Your task to perform on an android device: Search for the best burger restaurants on Maps Image 0: 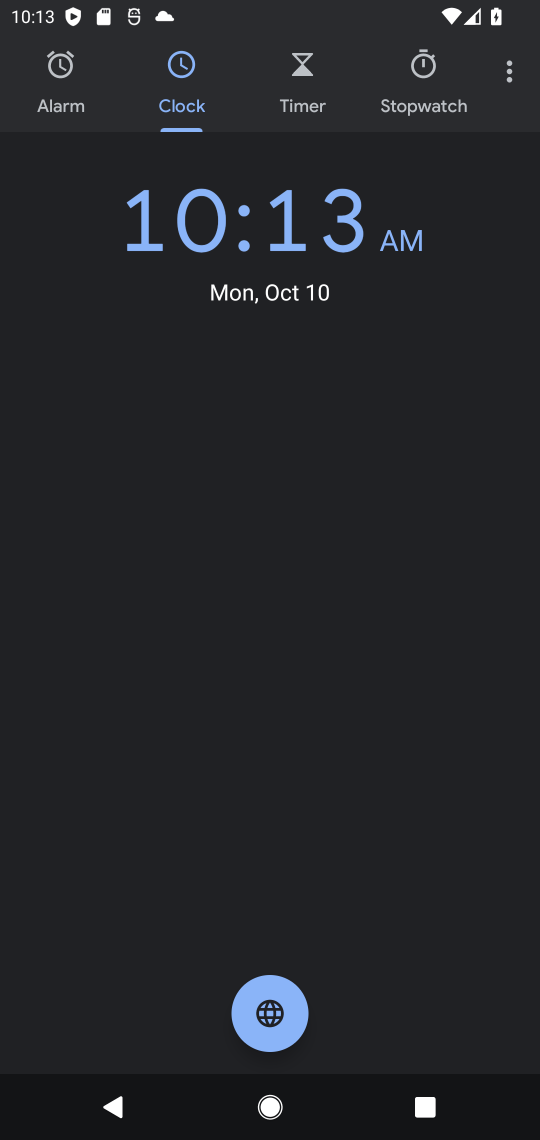
Step 0: press home button
Your task to perform on an android device: Search for the best burger restaurants on Maps Image 1: 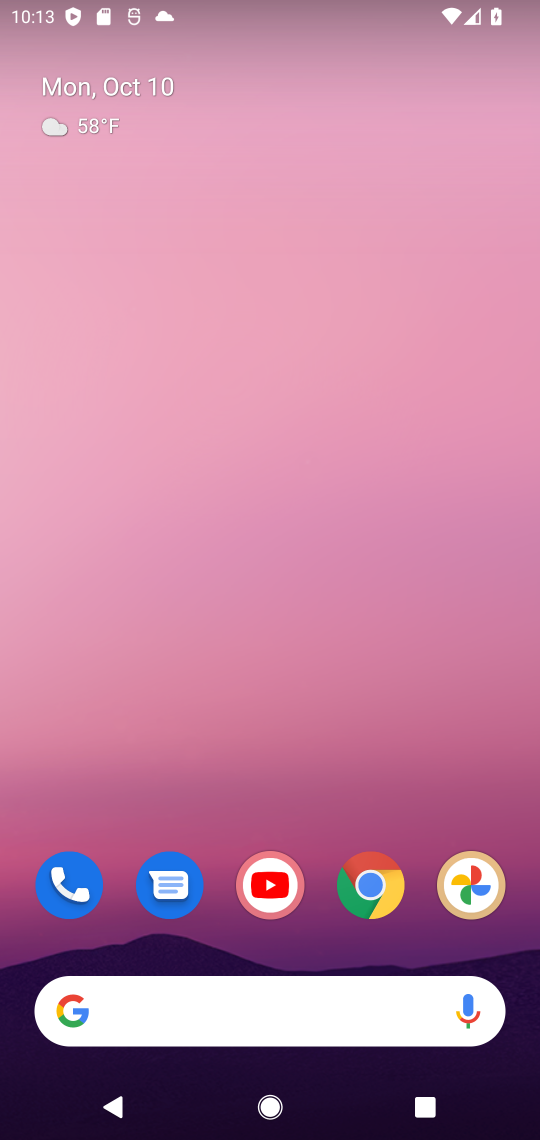
Step 1: click (360, 881)
Your task to perform on an android device: Search for the best burger restaurants on Maps Image 2: 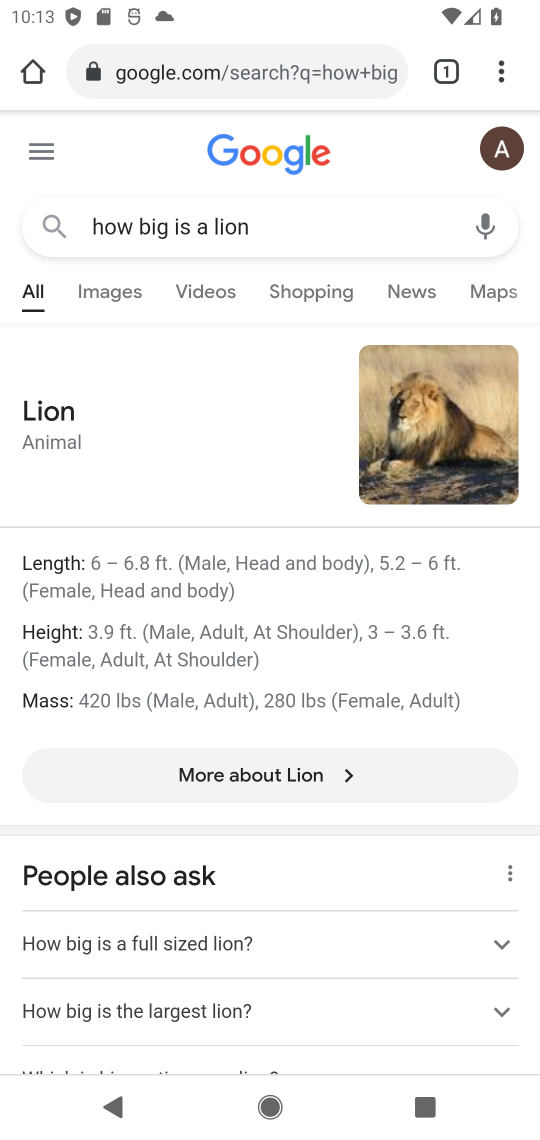
Step 2: press home button
Your task to perform on an android device: Search for the best burger restaurants on Maps Image 3: 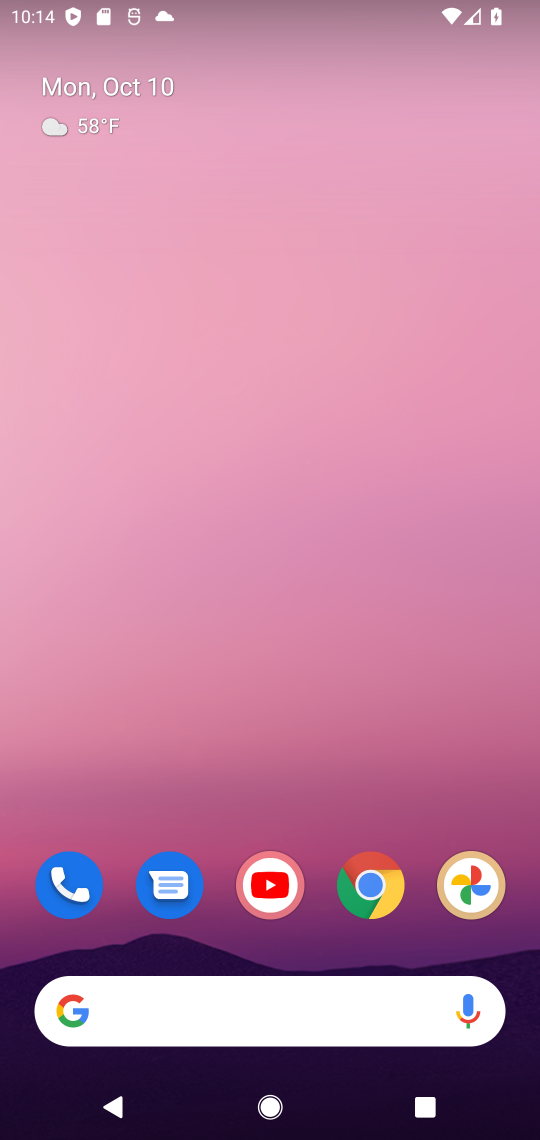
Step 3: drag from (419, 808) to (433, 146)
Your task to perform on an android device: Search for the best burger restaurants on Maps Image 4: 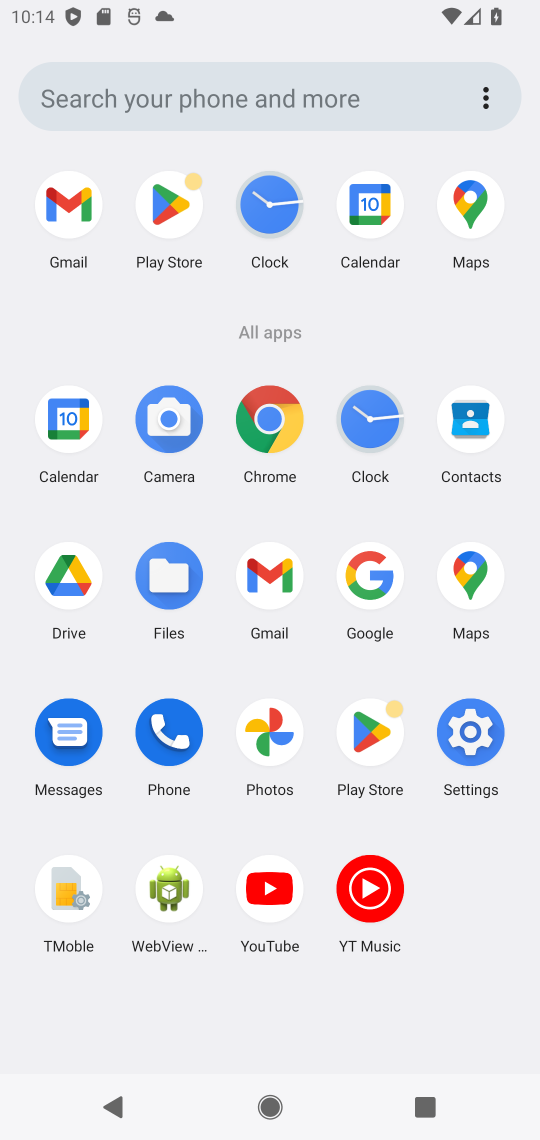
Step 4: click (480, 199)
Your task to perform on an android device: Search for the best burger restaurants on Maps Image 5: 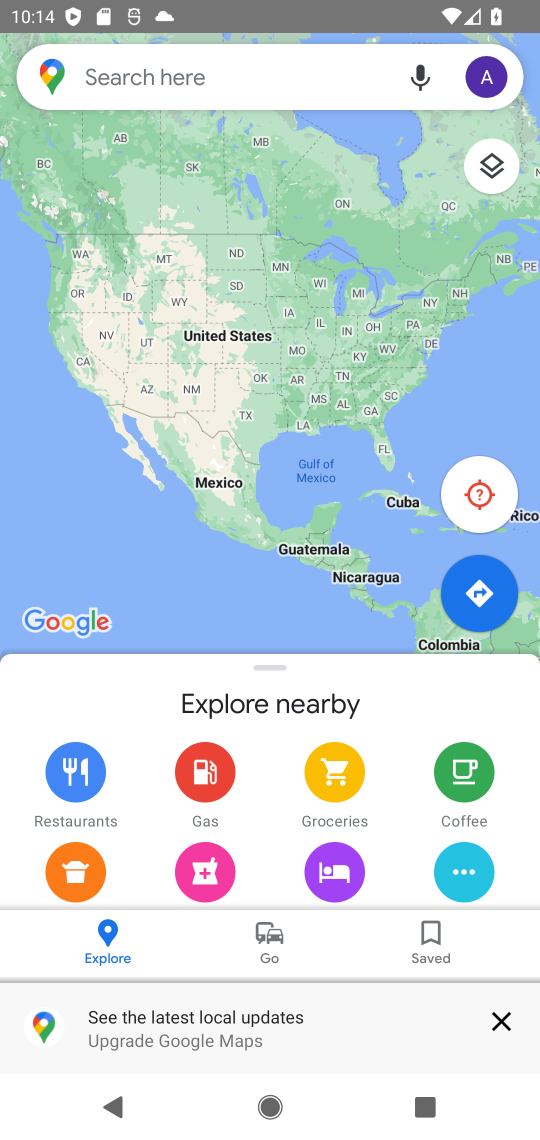
Step 5: click (225, 84)
Your task to perform on an android device: Search for the best burger restaurants on Maps Image 6: 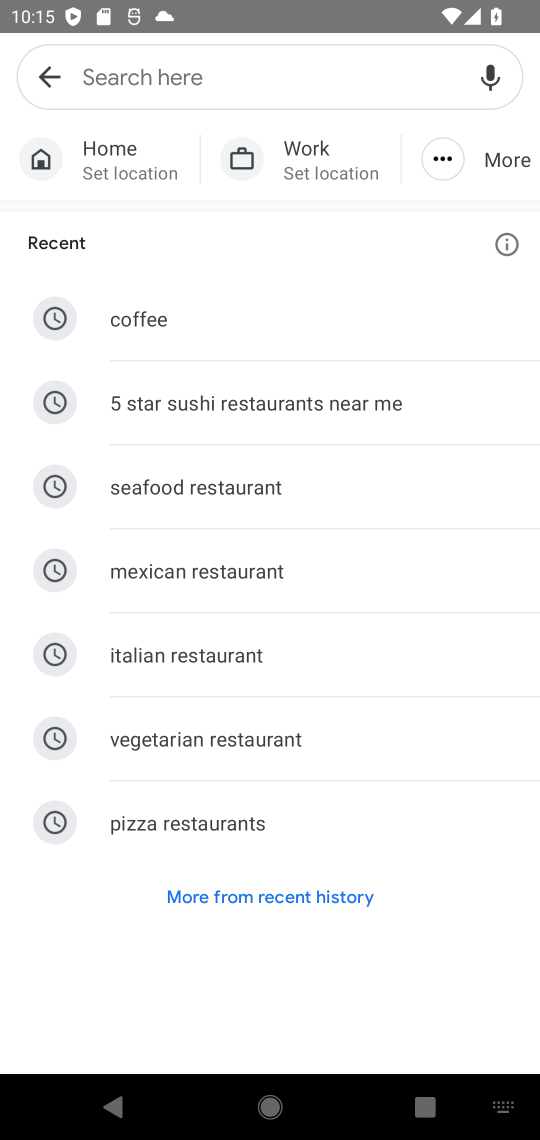
Step 6: type "best burger restaurants"
Your task to perform on an android device: Search for the best burger restaurants on Maps Image 7: 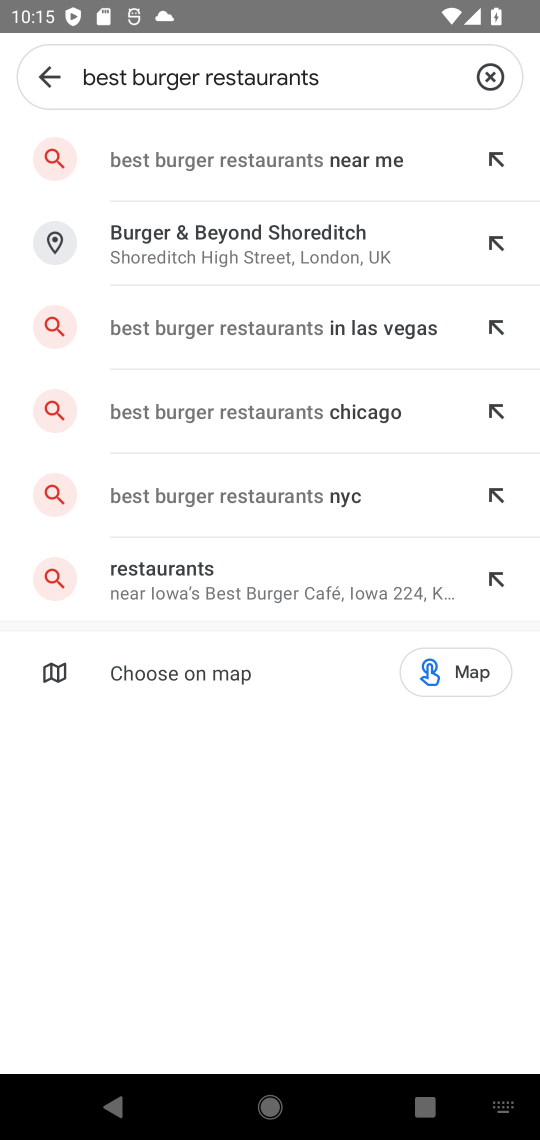
Step 7: click (204, 157)
Your task to perform on an android device: Search for the best burger restaurants on Maps Image 8: 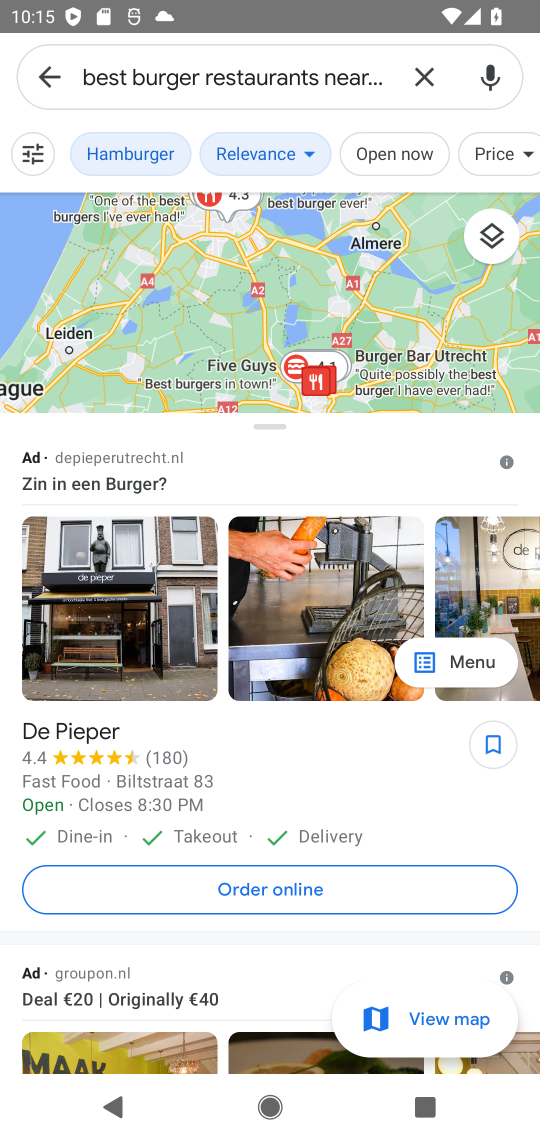
Step 8: task complete